Your task to perform on an android device: delete the emails in spam in the gmail app Image 0: 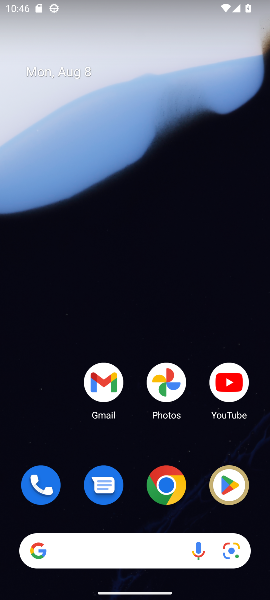
Step 0: drag from (202, 448) to (197, 31)
Your task to perform on an android device: delete the emails in spam in the gmail app Image 1: 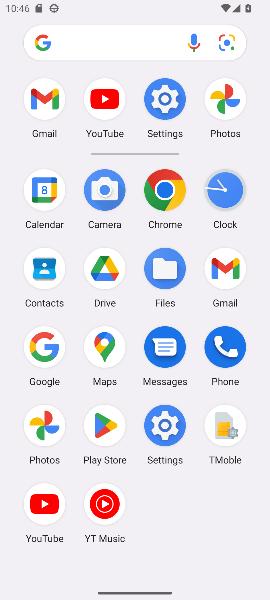
Step 1: click (221, 268)
Your task to perform on an android device: delete the emails in spam in the gmail app Image 2: 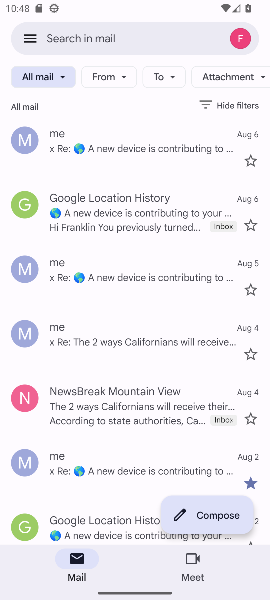
Step 2: click (35, 37)
Your task to perform on an android device: delete the emails in spam in the gmail app Image 3: 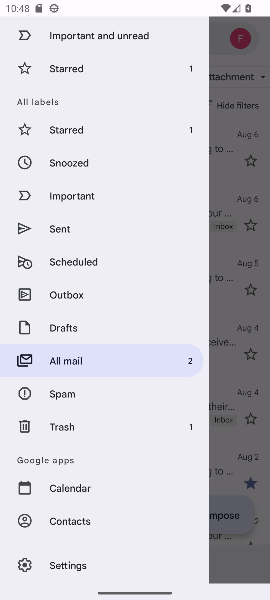
Step 3: click (74, 392)
Your task to perform on an android device: delete the emails in spam in the gmail app Image 4: 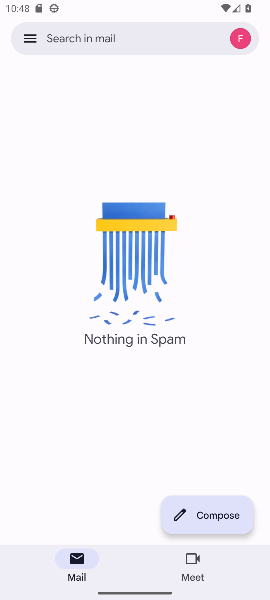
Step 4: task complete